Your task to perform on an android device: change the clock display to digital Image 0: 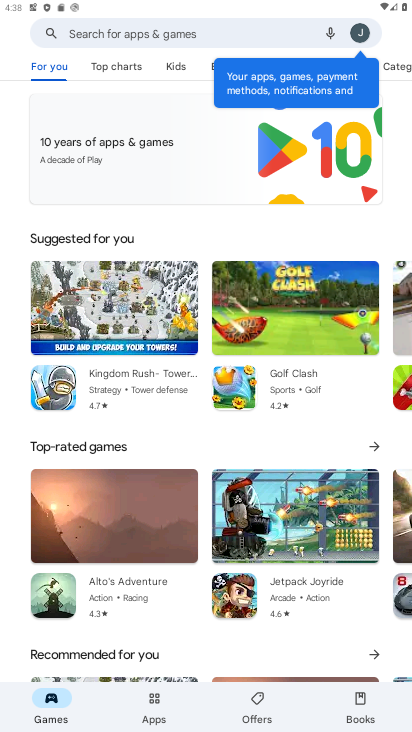
Step 0: press home button
Your task to perform on an android device: change the clock display to digital Image 1: 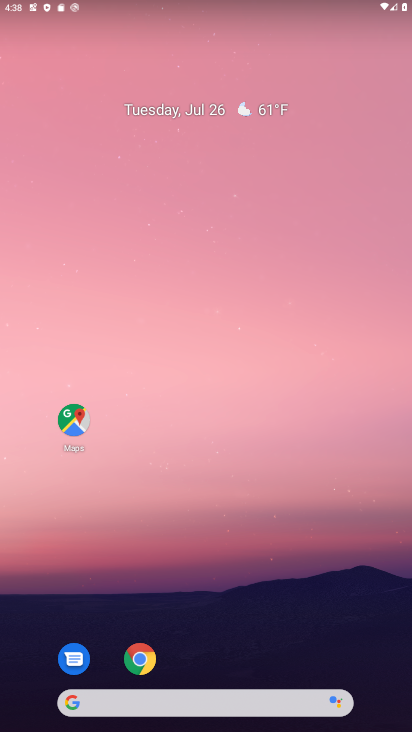
Step 1: drag from (254, 448) to (258, 144)
Your task to perform on an android device: change the clock display to digital Image 2: 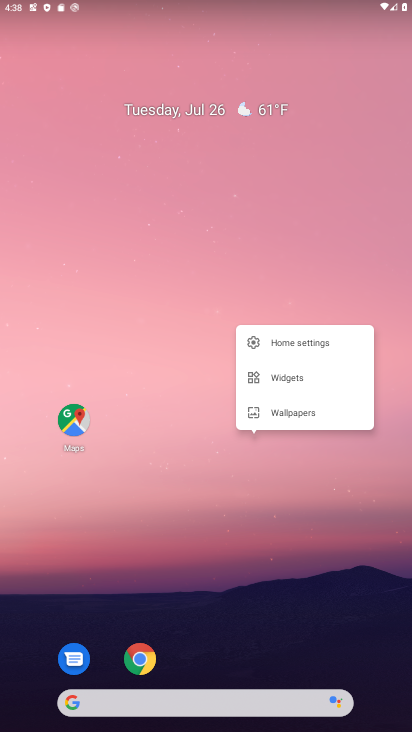
Step 2: click (225, 551)
Your task to perform on an android device: change the clock display to digital Image 3: 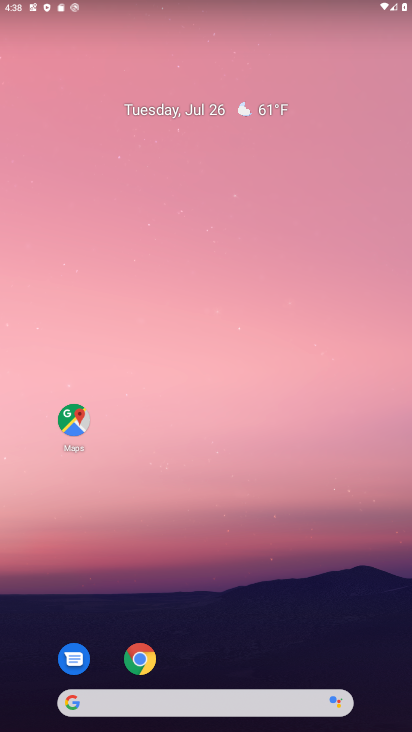
Step 3: drag from (225, 551) to (234, 66)
Your task to perform on an android device: change the clock display to digital Image 4: 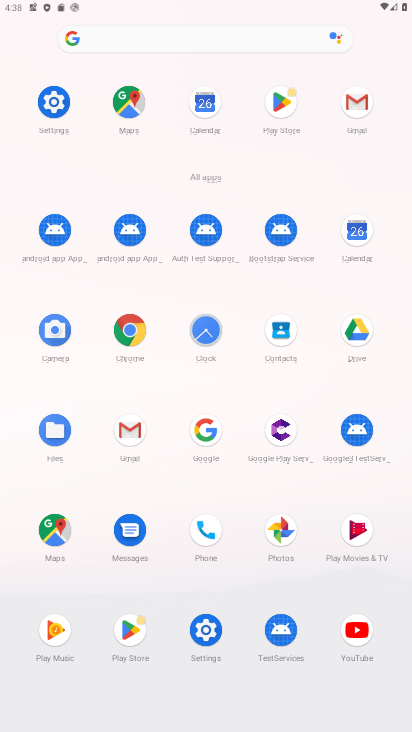
Step 4: click (206, 331)
Your task to perform on an android device: change the clock display to digital Image 5: 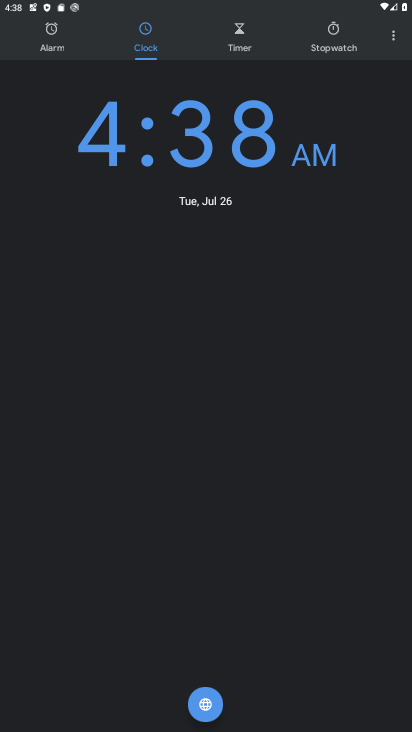
Step 5: task complete